Your task to perform on an android device: Open notification settings Image 0: 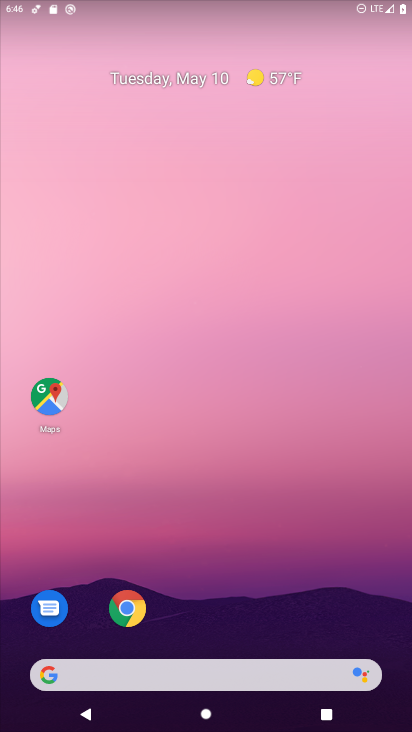
Step 0: drag from (340, 604) to (214, 1)
Your task to perform on an android device: Open notification settings Image 1: 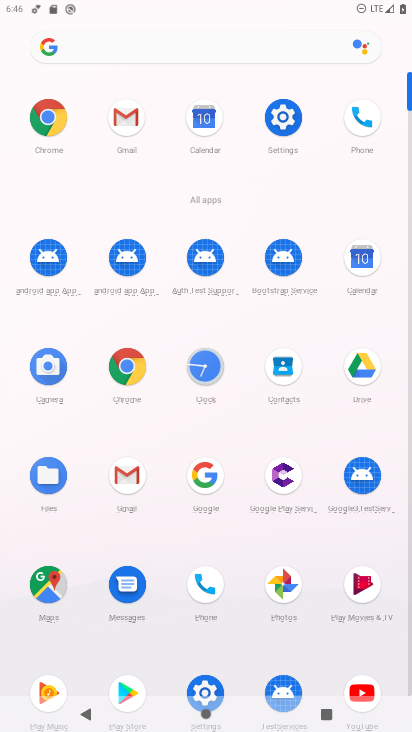
Step 1: click (275, 128)
Your task to perform on an android device: Open notification settings Image 2: 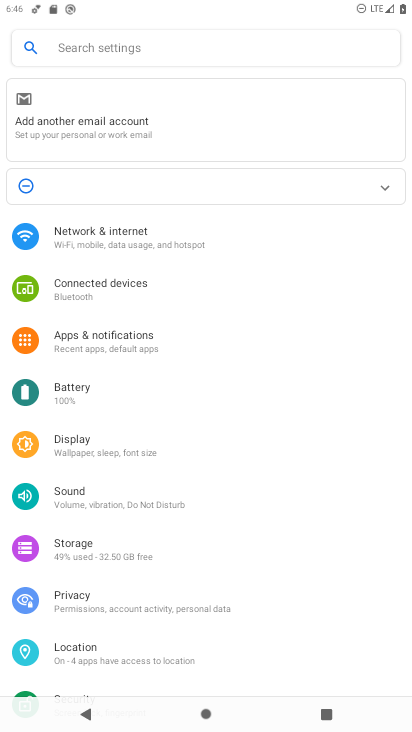
Step 2: click (164, 338)
Your task to perform on an android device: Open notification settings Image 3: 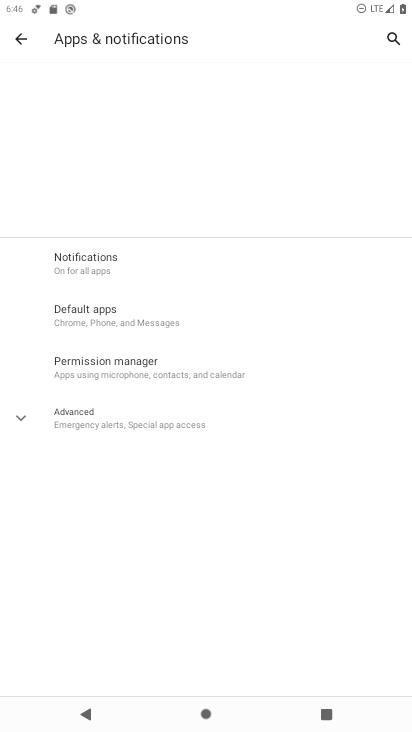
Step 3: click (140, 269)
Your task to perform on an android device: Open notification settings Image 4: 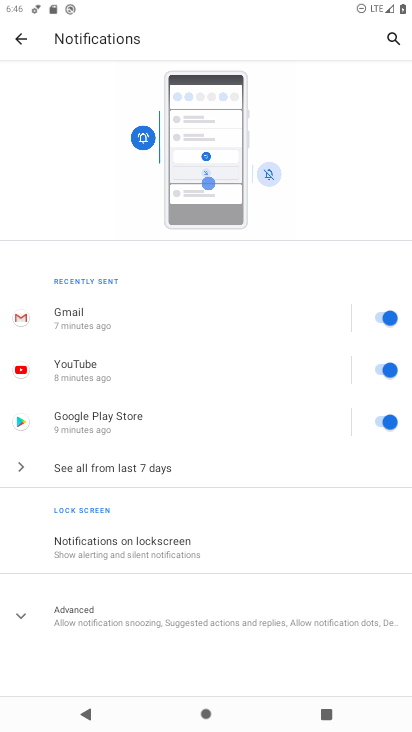
Step 4: task complete